Your task to perform on an android device: turn off improve location accuracy Image 0: 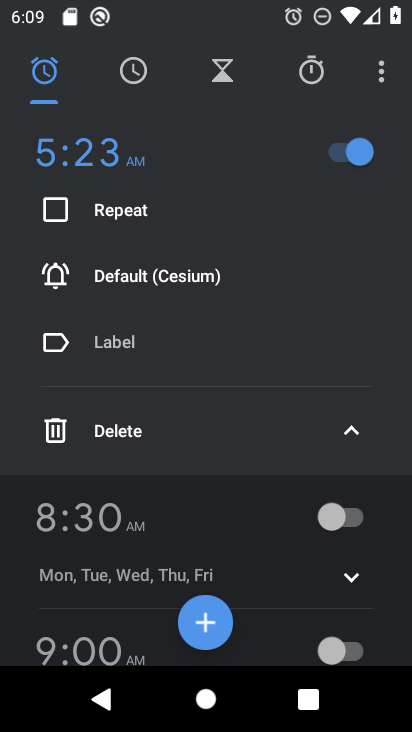
Step 0: press home button
Your task to perform on an android device: turn off improve location accuracy Image 1: 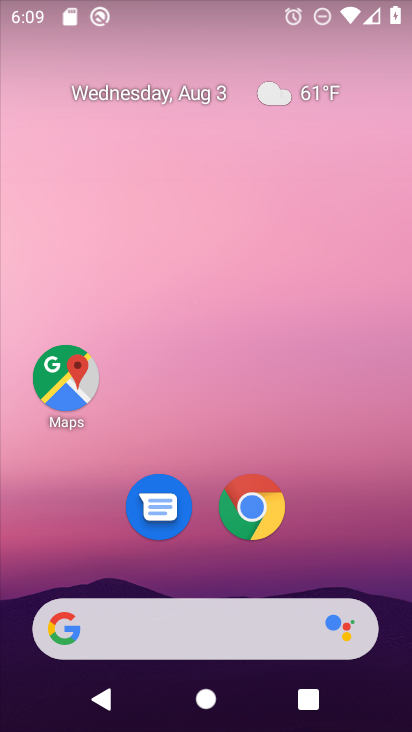
Step 1: drag from (337, 531) to (324, 12)
Your task to perform on an android device: turn off improve location accuracy Image 2: 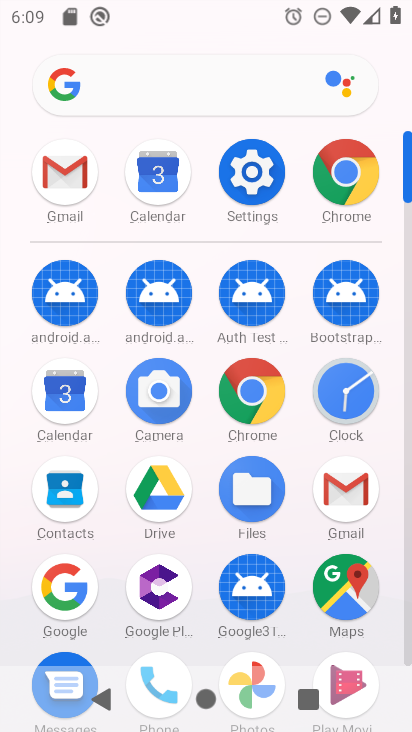
Step 2: click (264, 170)
Your task to perform on an android device: turn off improve location accuracy Image 3: 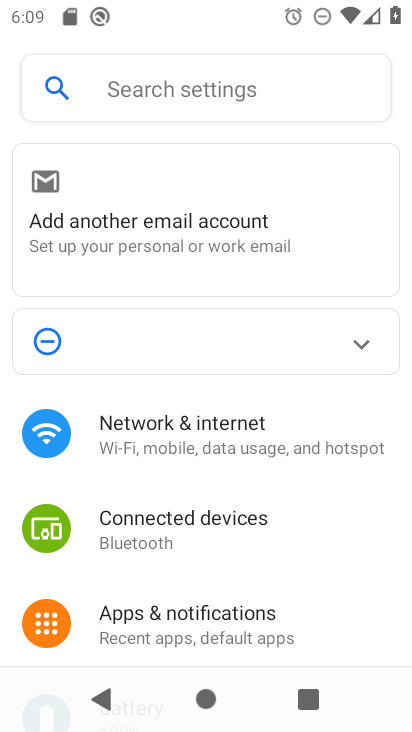
Step 3: drag from (303, 592) to (261, 41)
Your task to perform on an android device: turn off improve location accuracy Image 4: 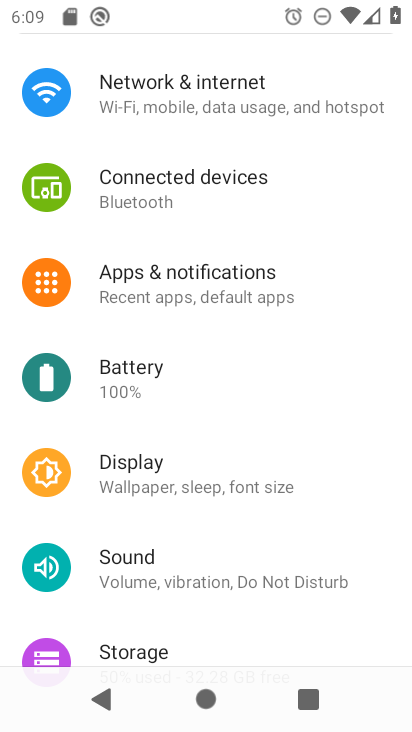
Step 4: drag from (255, 626) to (275, 173)
Your task to perform on an android device: turn off improve location accuracy Image 5: 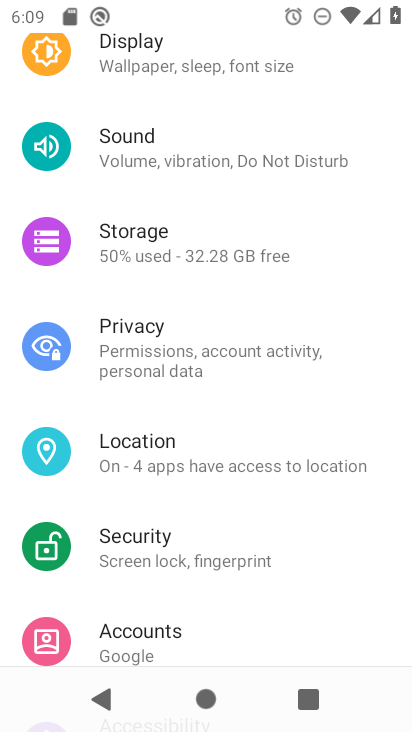
Step 5: click (236, 467)
Your task to perform on an android device: turn off improve location accuracy Image 6: 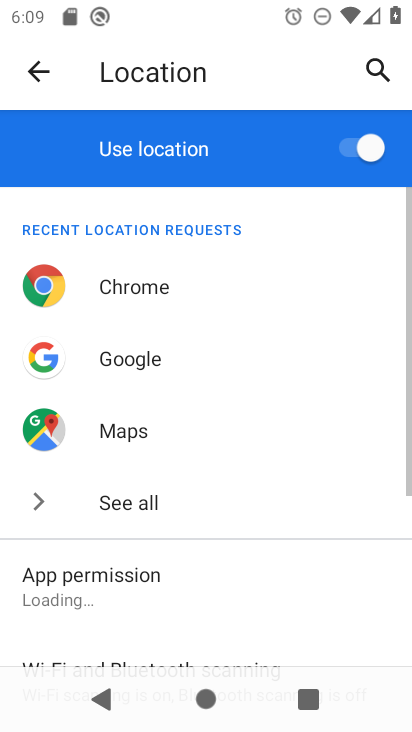
Step 6: drag from (306, 566) to (357, 80)
Your task to perform on an android device: turn off improve location accuracy Image 7: 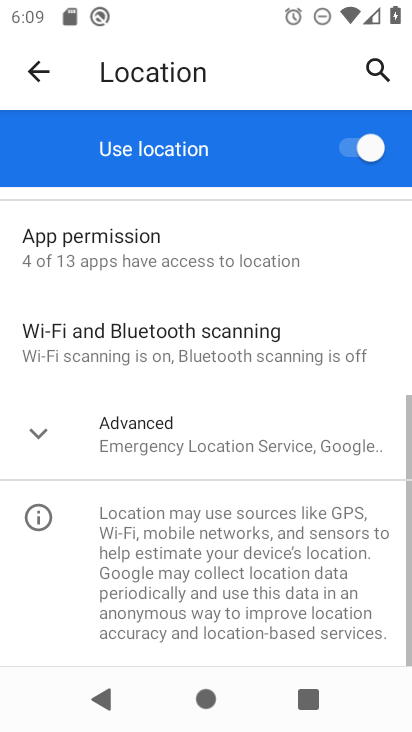
Step 7: click (214, 444)
Your task to perform on an android device: turn off improve location accuracy Image 8: 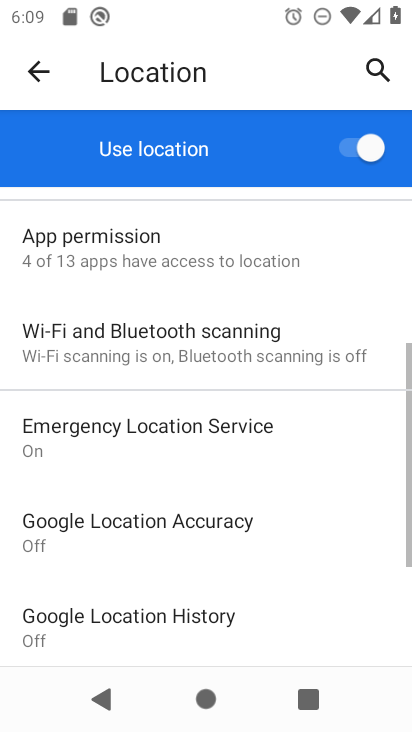
Step 8: drag from (359, 547) to (398, 178)
Your task to perform on an android device: turn off improve location accuracy Image 9: 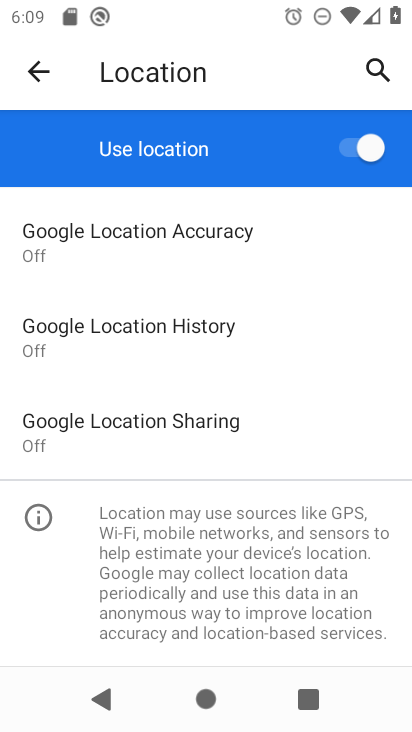
Step 9: click (198, 230)
Your task to perform on an android device: turn off improve location accuracy Image 10: 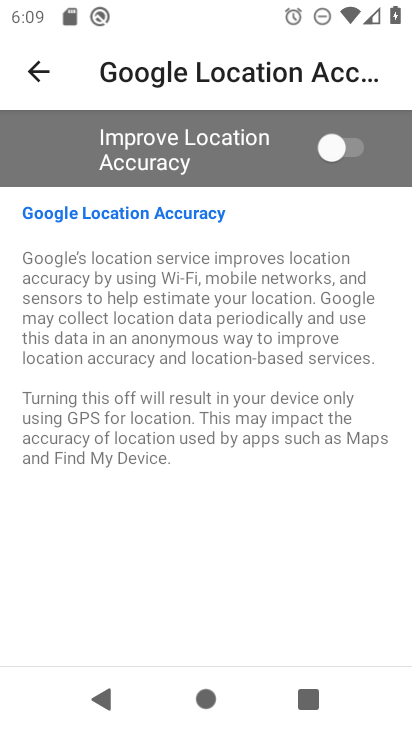
Step 10: task complete